Your task to perform on an android device: Show me the alarms in the clock app Image 0: 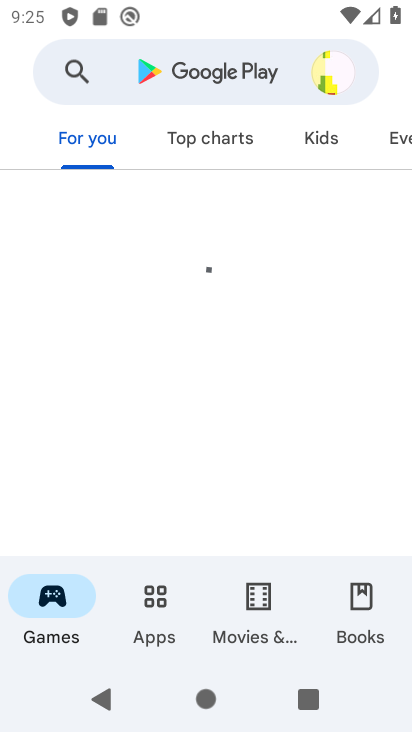
Step 0: press home button
Your task to perform on an android device: Show me the alarms in the clock app Image 1: 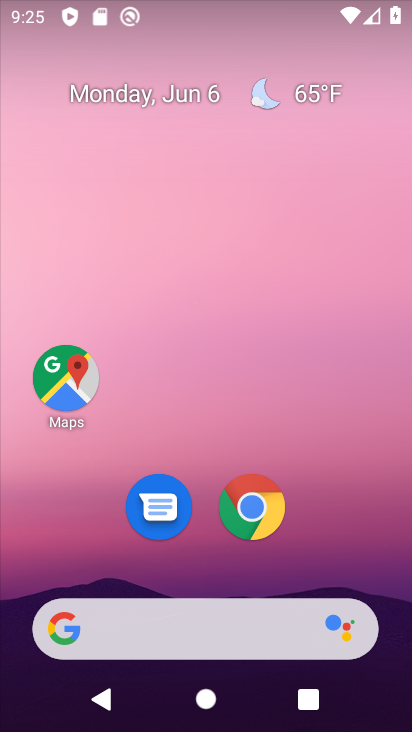
Step 1: drag from (151, 562) to (232, 172)
Your task to perform on an android device: Show me the alarms in the clock app Image 2: 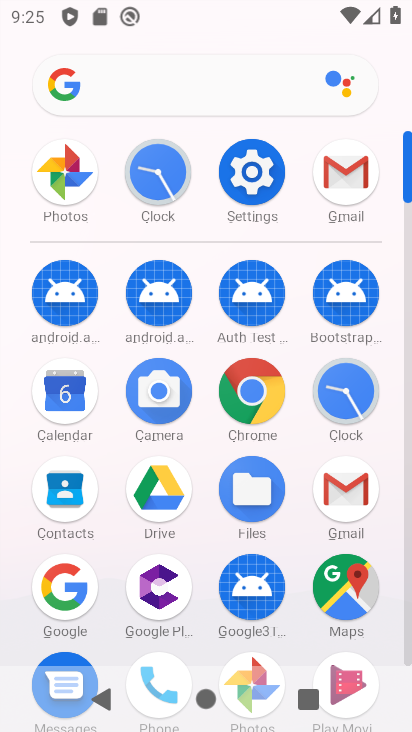
Step 2: click (340, 384)
Your task to perform on an android device: Show me the alarms in the clock app Image 3: 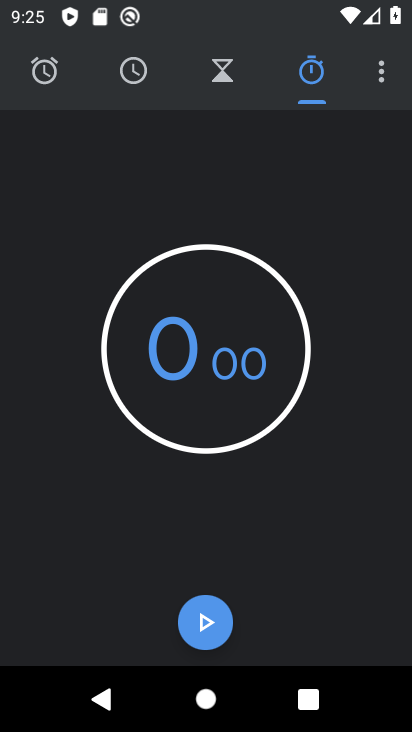
Step 3: click (42, 70)
Your task to perform on an android device: Show me the alarms in the clock app Image 4: 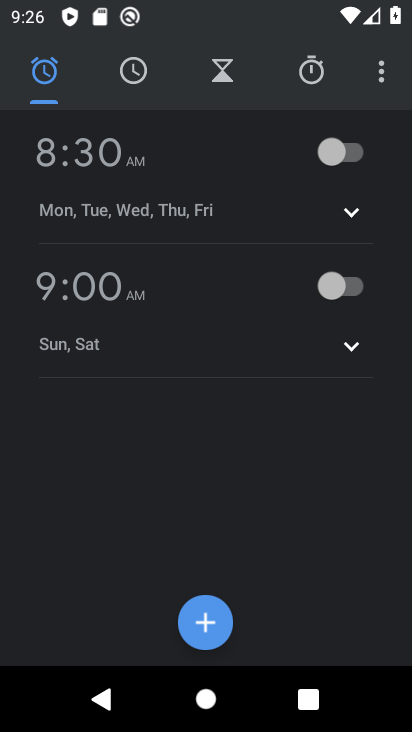
Step 4: task complete